Your task to perform on an android device: move a message to another label in the gmail app Image 0: 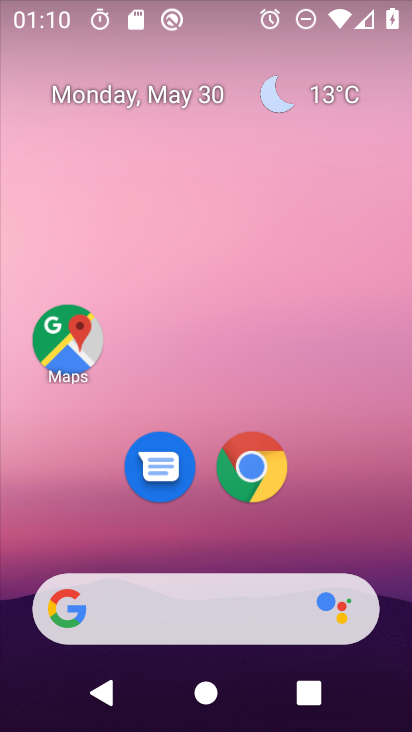
Step 0: drag from (188, 505) to (157, 152)
Your task to perform on an android device: move a message to another label in the gmail app Image 1: 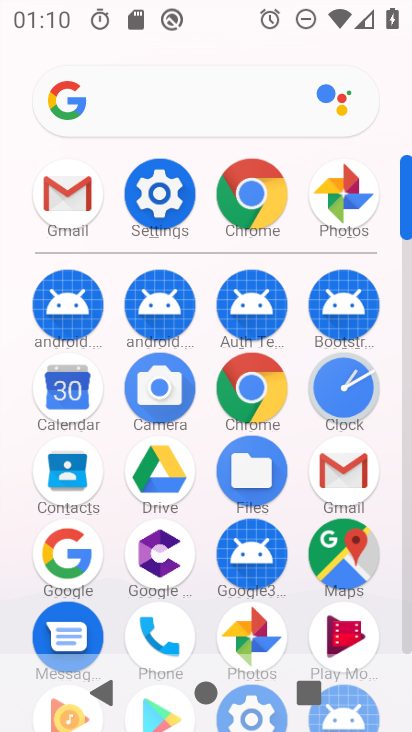
Step 1: click (330, 474)
Your task to perform on an android device: move a message to another label in the gmail app Image 2: 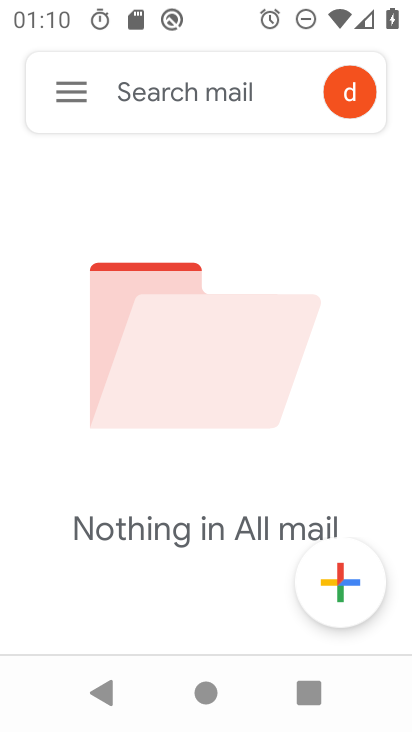
Step 2: click (55, 84)
Your task to perform on an android device: move a message to another label in the gmail app Image 3: 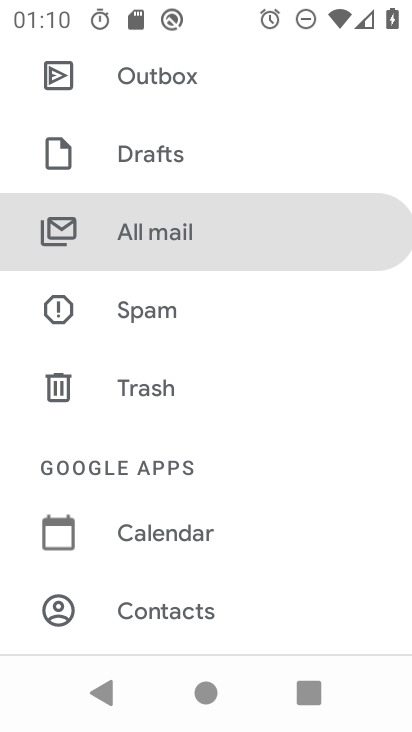
Step 3: drag from (209, 460) to (216, 333)
Your task to perform on an android device: move a message to another label in the gmail app Image 4: 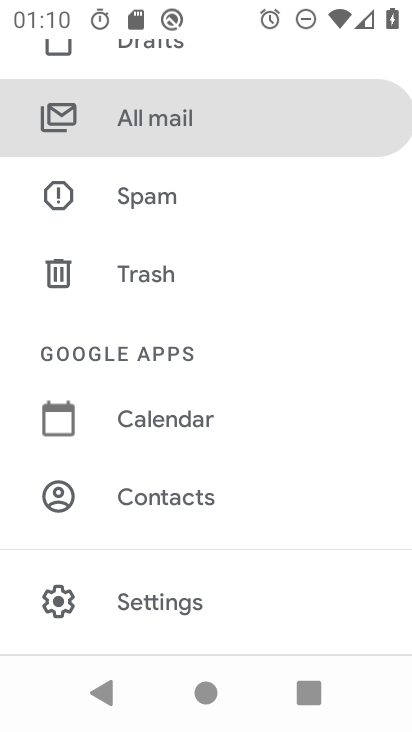
Step 4: click (194, 128)
Your task to perform on an android device: move a message to another label in the gmail app Image 5: 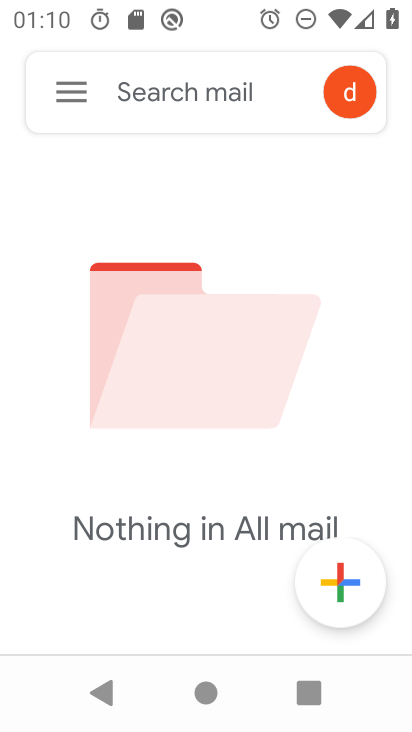
Step 5: task complete